Your task to perform on an android device: read, delete, or share a saved page in the chrome app Image 0: 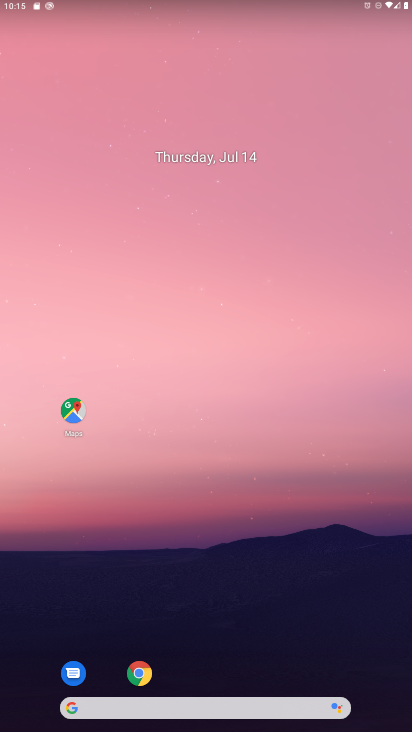
Step 0: click (139, 674)
Your task to perform on an android device: read, delete, or share a saved page in the chrome app Image 1: 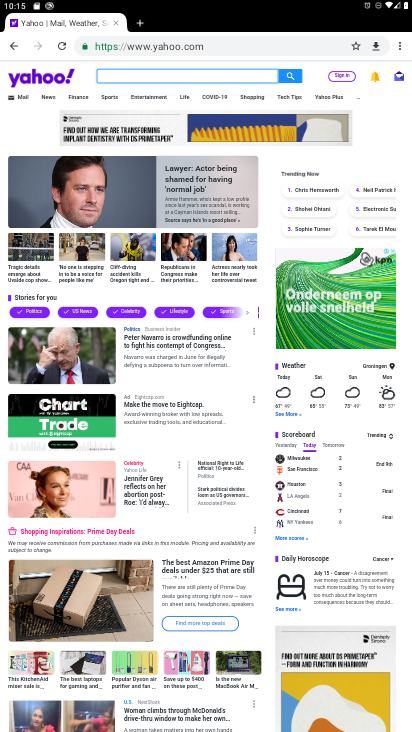
Step 1: click (399, 46)
Your task to perform on an android device: read, delete, or share a saved page in the chrome app Image 2: 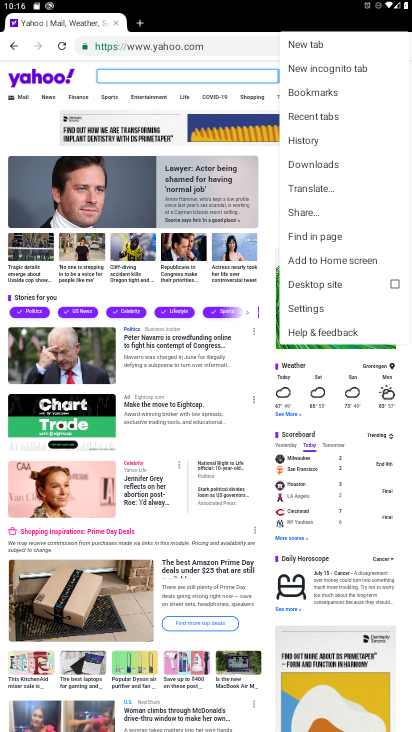
Step 2: click (335, 163)
Your task to perform on an android device: read, delete, or share a saved page in the chrome app Image 3: 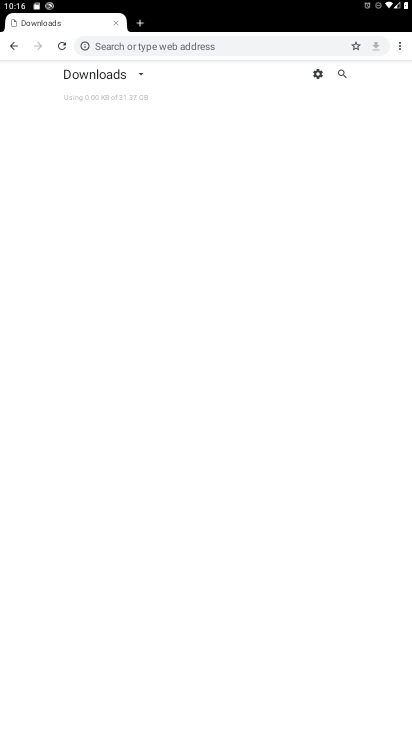
Step 3: click (142, 74)
Your task to perform on an android device: read, delete, or share a saved page in the chrome app Image 4: 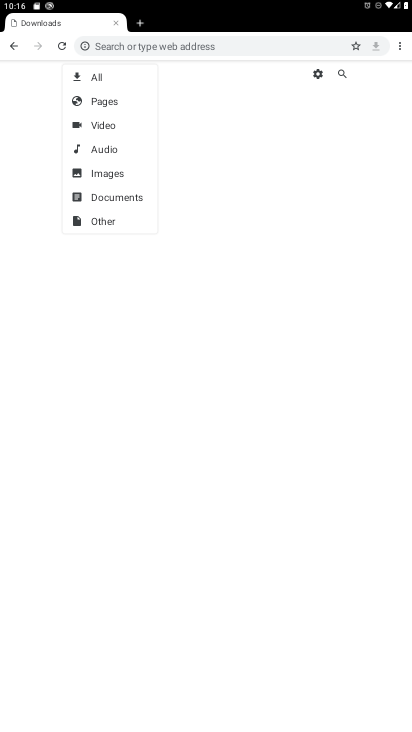
Step 4: click (97, 108)
Your task to perform on an android device: read, delete, or share a saved page in the chrome app Image 5: 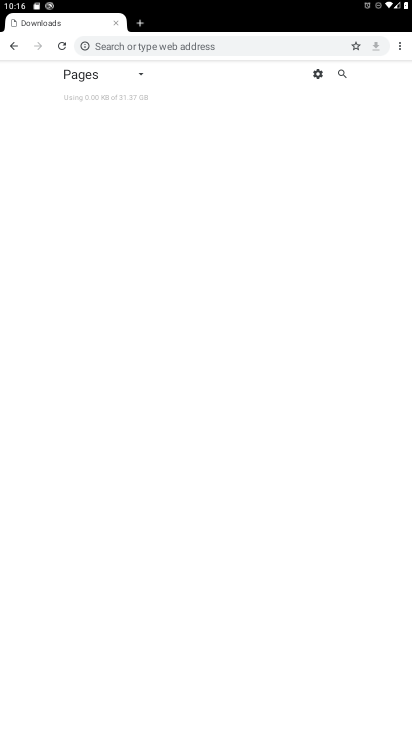
Step 5: click (137, 76)
Your task to perform on an android device: read, delete, or share a saved page in the chrome app Image 6: 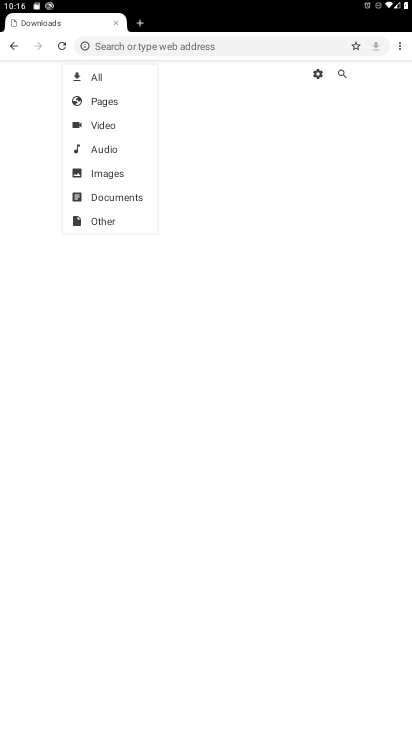
Step 6: click (113, 210)
Your task to perform on an android device: read, delete, or share a saved page in the chrome app Image 7: 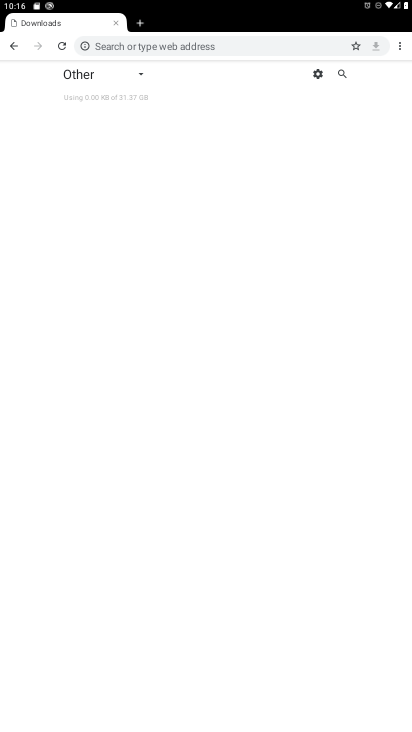
Step 7: task complete